Your task to perform on an android device: Open calendar and show me the fourth week of next month Image 0: 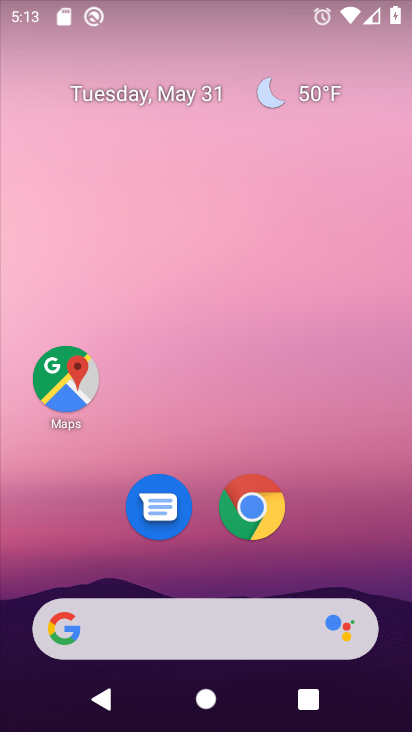
Step 0: drag from (329, 496) to (272, 1)
Your task to perform on an android device: Open calendar and show me the fourth week of next month Image 1: 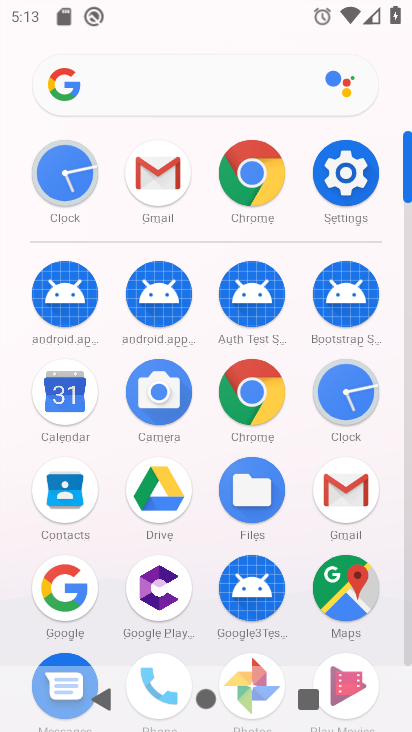
Step 1: click (59, 406)
Your task to perform on an android device: Open calendar and show me the fourth week of next month Image 2: 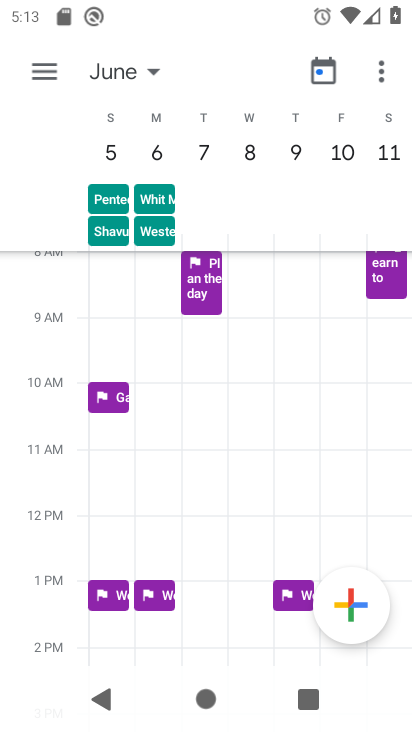
Step 2: task complete